Your task to perform on an android device: delete browsing data in the chrome app Image 0: 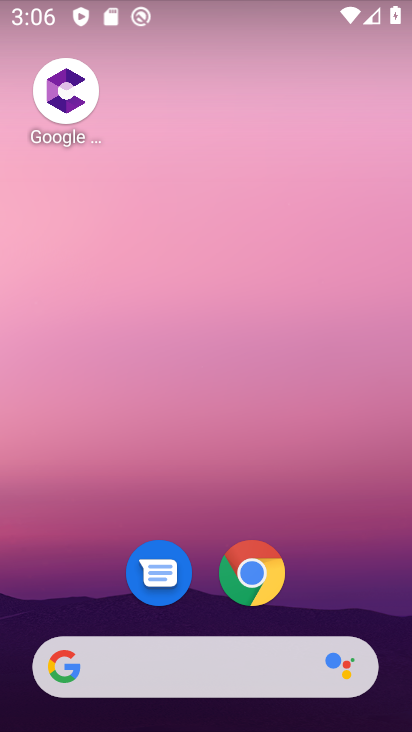
Step 0: click (202, 305)
Your task to perform on an android device: delete browsing data in the chrome app Image 1: 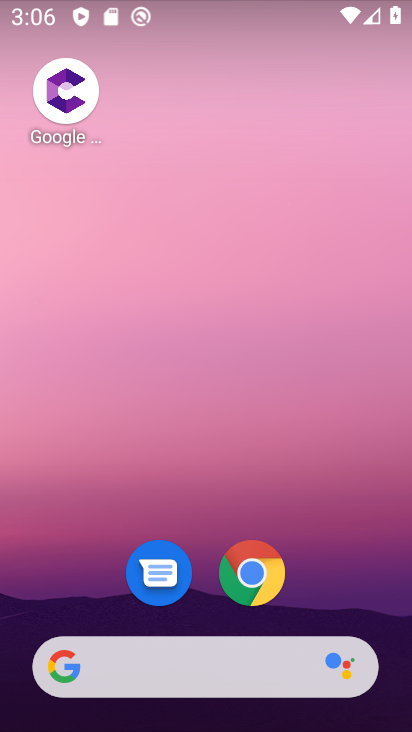
Step 1: drag from (211, 583) to (252, 250)
Your task to perform on an android device: delete browsing data in the chrome app Image 2: 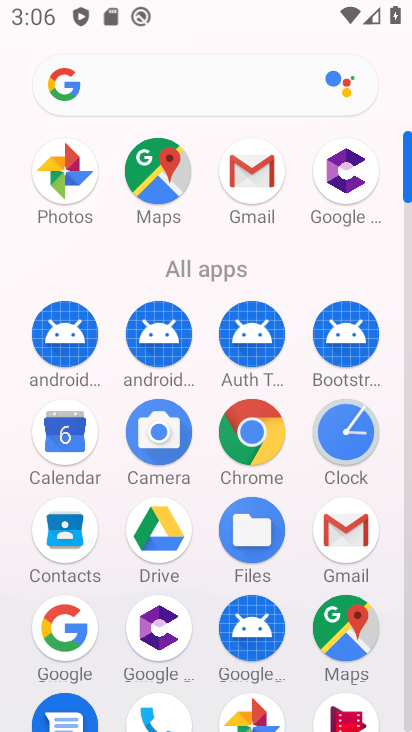
Step 2: drag from (213, 657) to (232, 126)
Your task to perform on an android device: delete browsing data in the chrome app Image 3: 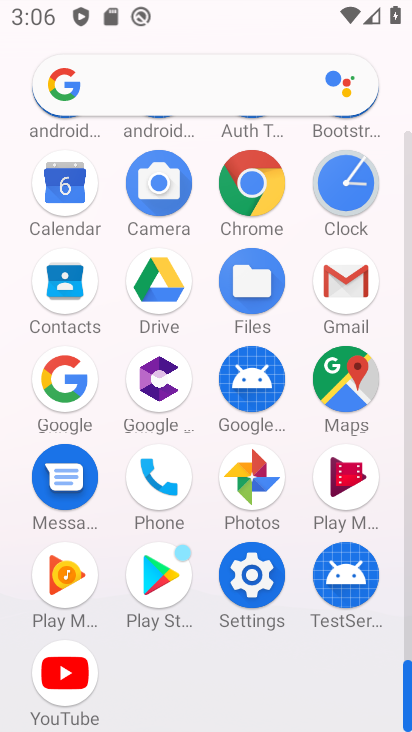
Step 3: click (258, 181)
Your task to perform on an android device: delete browsing data in the chrome app Image 4: 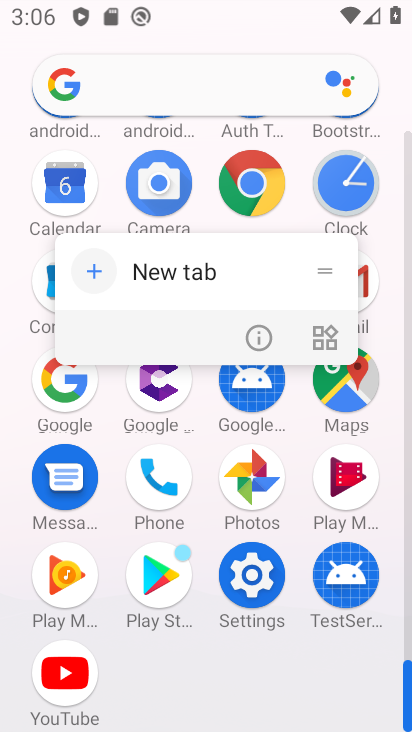
Step 4: click (260, 341)
Your task to perform on an android device: delete browsing data in the chrome app Image 5: 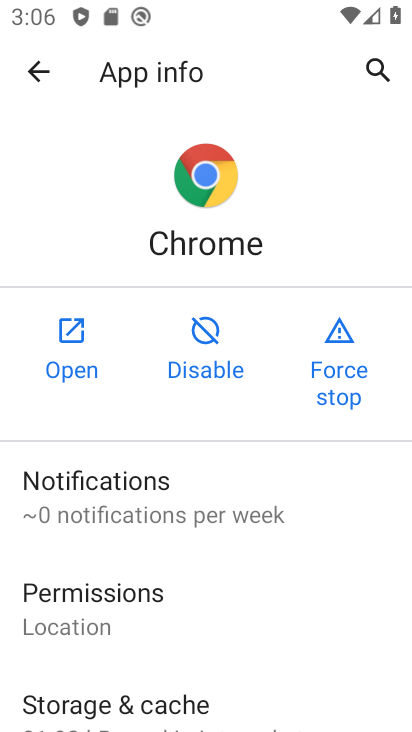
Step 5: click (81, 343)
Your task to perform on an android device: delete browsing data in the chrome app Image 6: 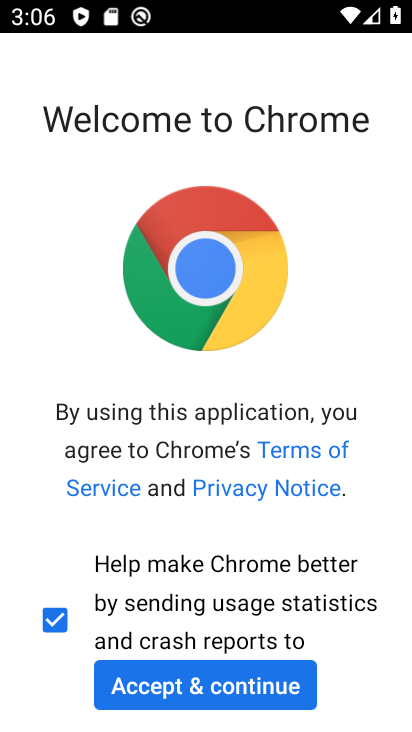
Step 6: click (258, 682)
Your task to perform on an android device: delete browsing data in the chrome app Image 7: 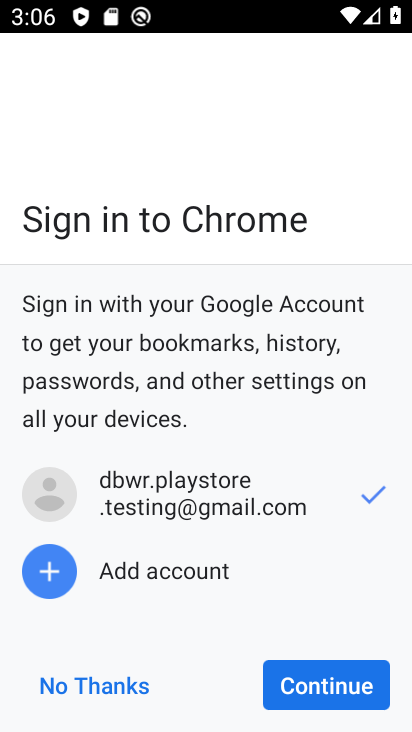
Step 7: click (109, 687)
Your task to perform on an android device: delete browsing data in the chrome app Image 8: 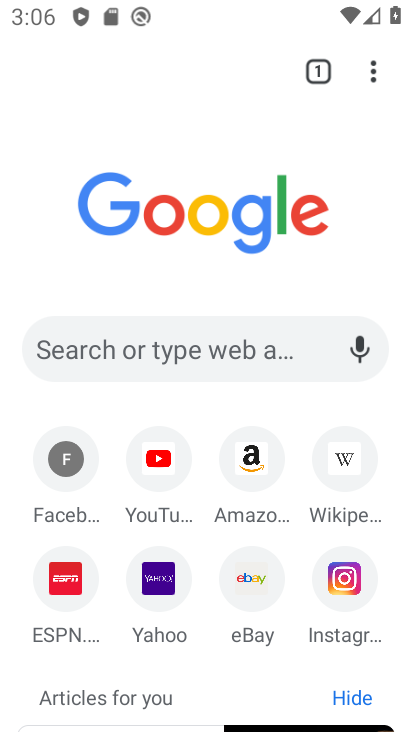
Step 8: task complete